Your task to perform on an android device: open chrome privacy settings Image 0: 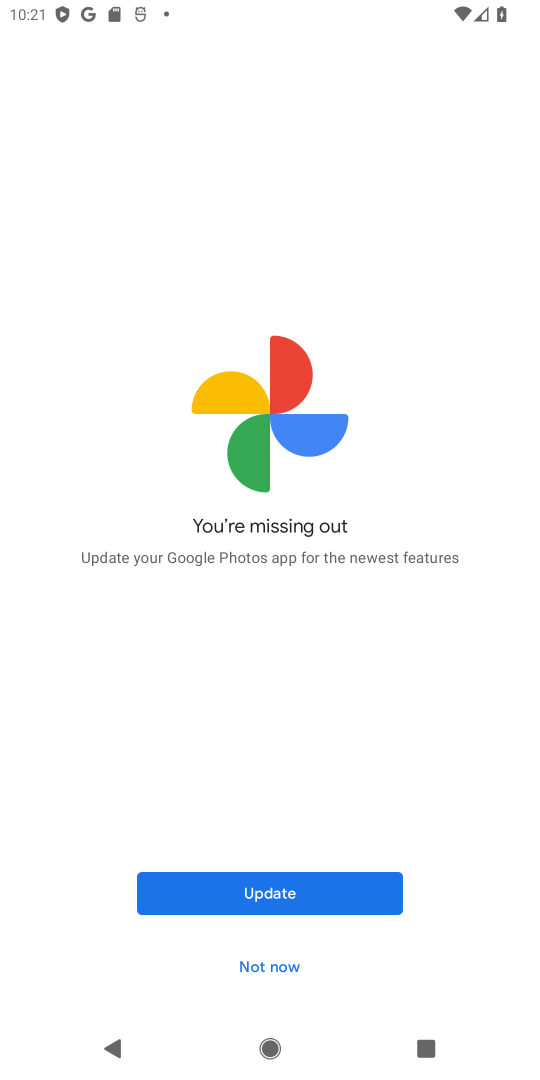
Step 0: press home button
Your task to perform on an android device: open chrome privacy settings Image 1: 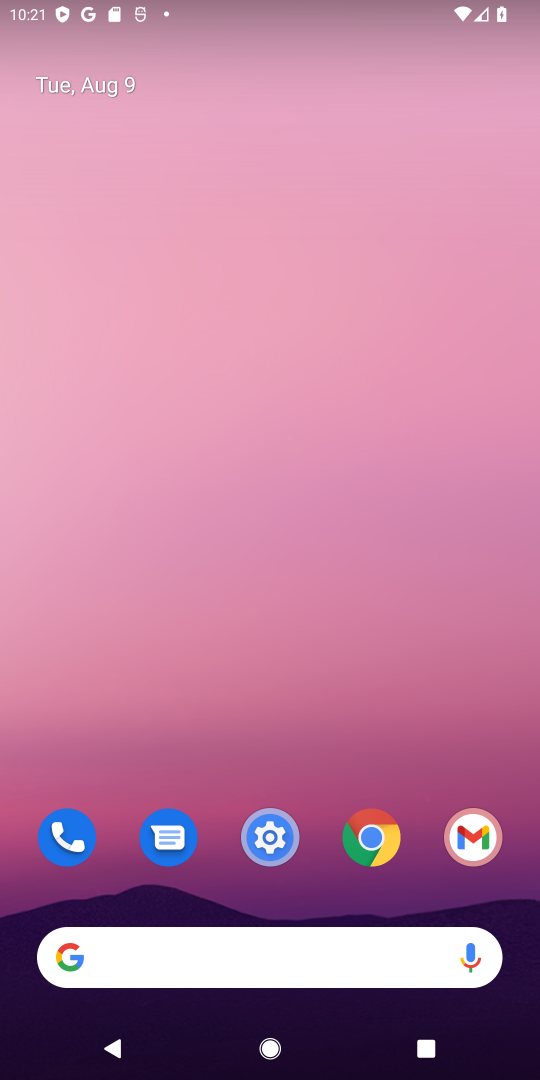
Step 1: click (376, 841)
Your task to perform on an android device: open chrome privacy settings Image 2: 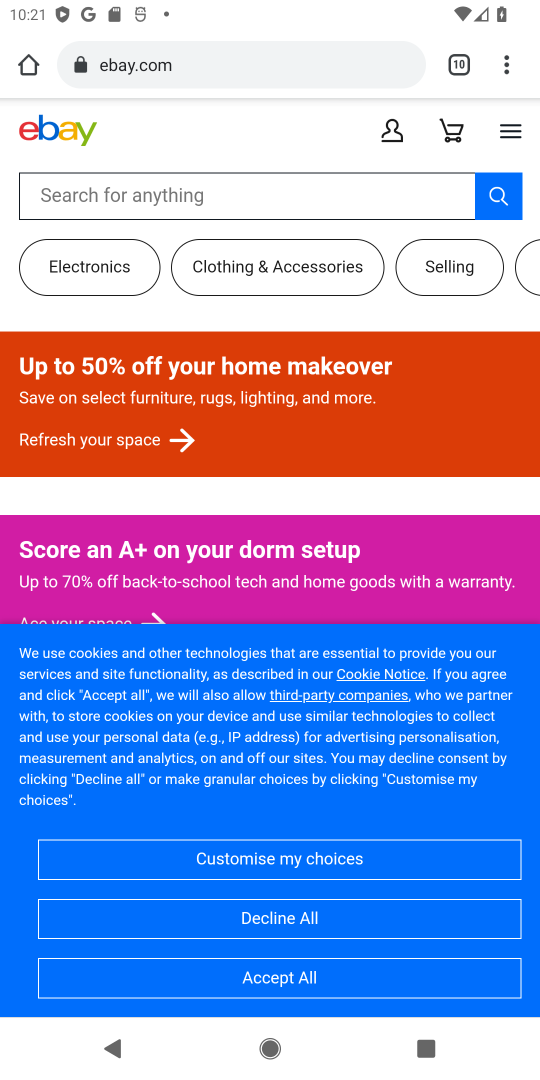
Step 2: click (506, 67)
Your task to perform on an android device: open chrome privacy settings Image 3: 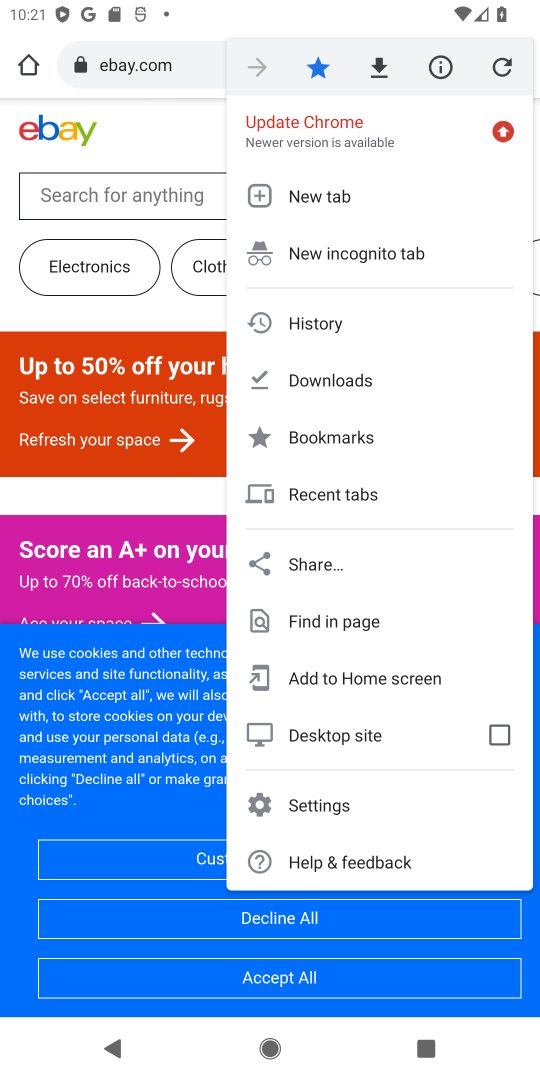
Step 3: click (332, 798)
Your task to perform on an android device: open chrome privacy settings Image 4: 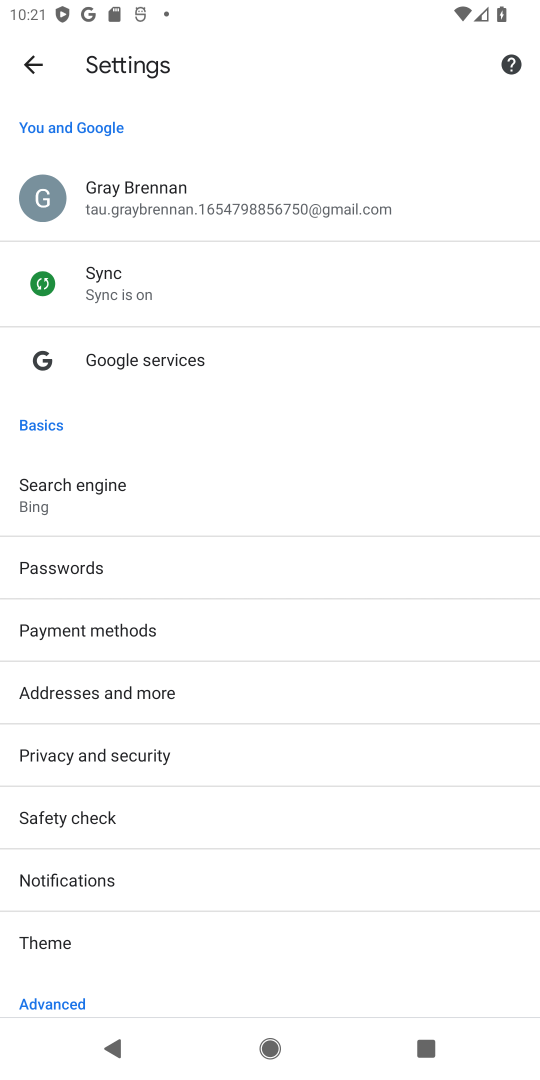
Step 4: drag from (98, 865) to (139, 440)
Your task to perform on an android device: open chrome privacy settings Image 5: 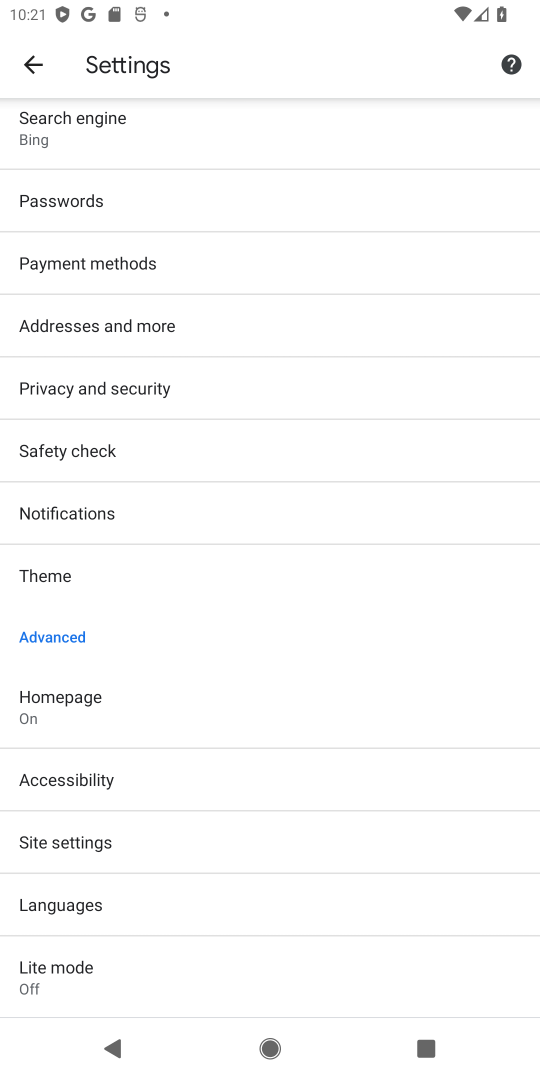
Step 5: drag from (251, 924) to (250, 663)
Your task to perform on an android device: open chrome privacy settings Image 6: 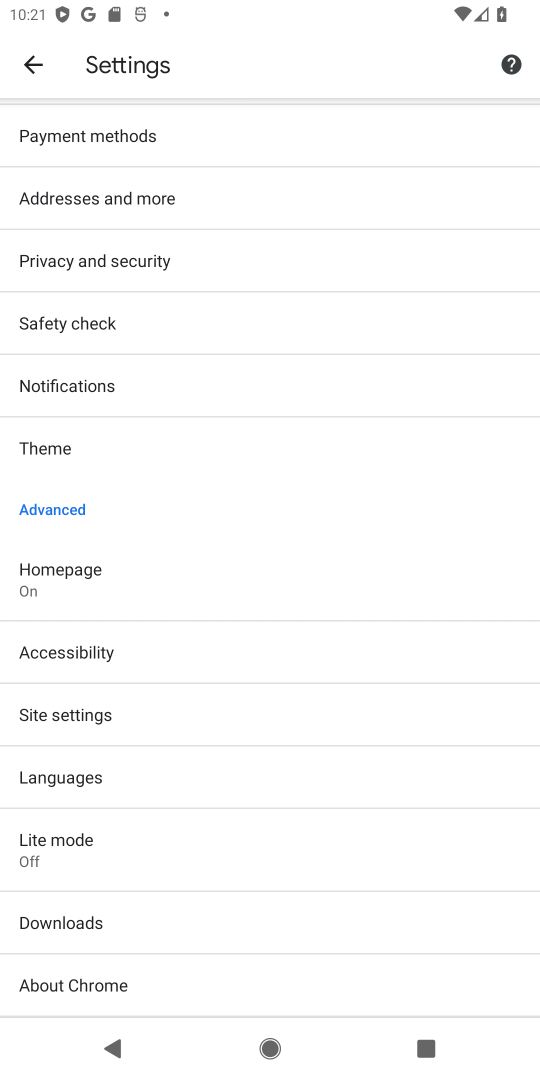
Step 6: click (96, 265)
Your task to perform on an android device: open chrome privacy settings Image 7: 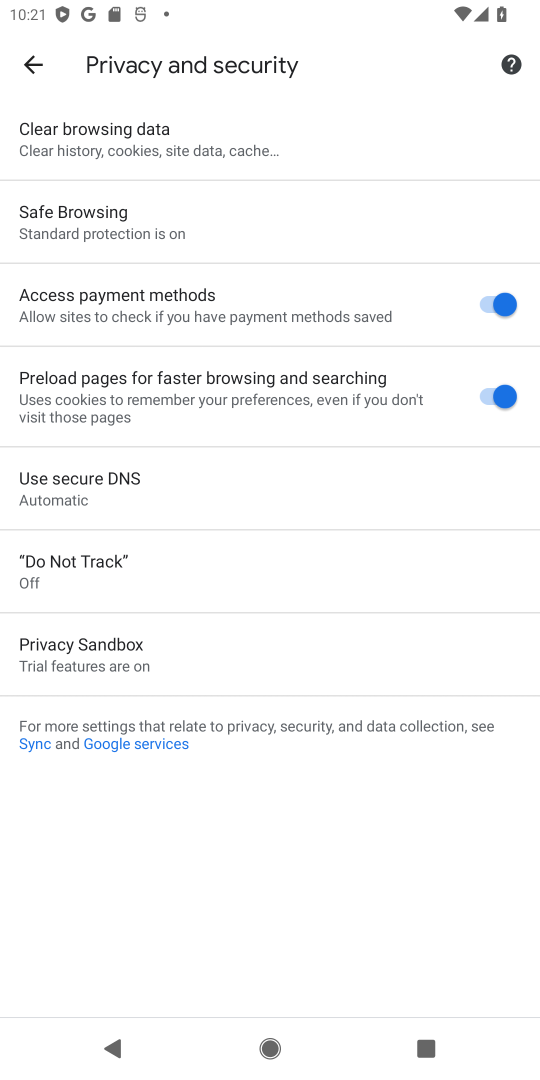
Step 7: task complete